Your task to perform on an android device: toggle notification dots Image 0: 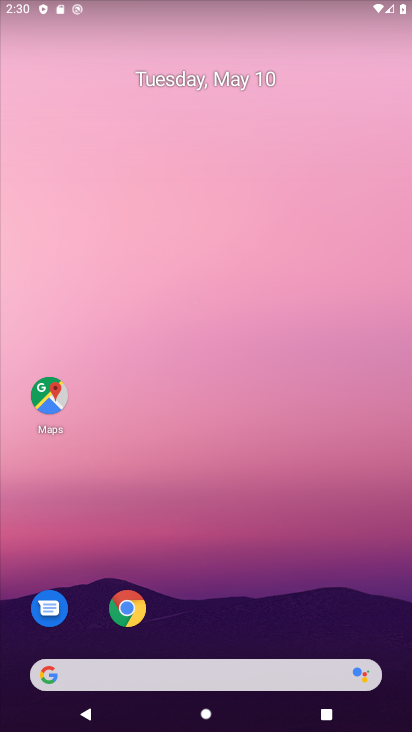
Step 0: drag from (397, 665) to (292, 176)
Your task to perform on an android device: toggle notification dots Image 1: 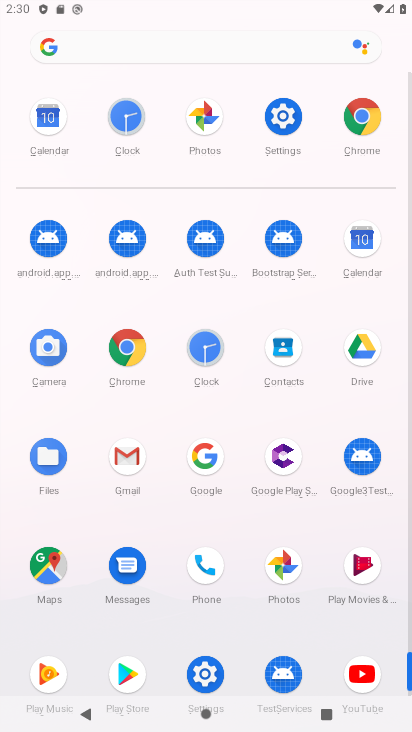
Step 1: drag from (410, 645) to (410, 607)
Your task to perform on an android device: toggle notification dots Image 2: 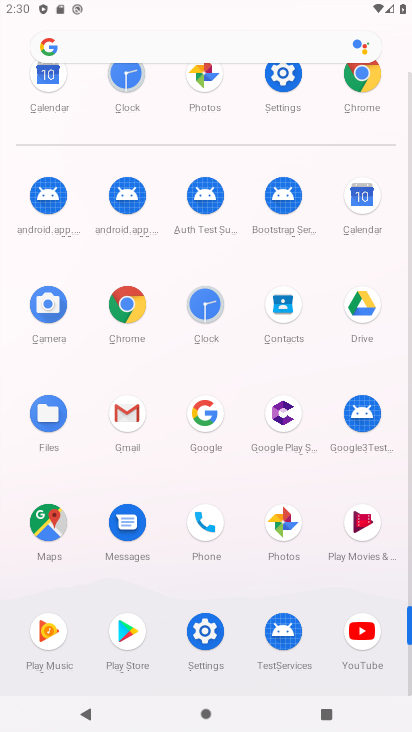
Step 2: click (203, 631)
Your task to perform on an android device: toggle notification dots Image 3: 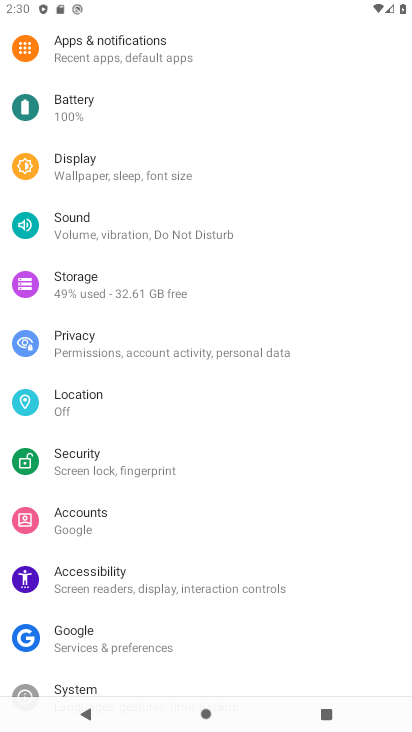
Step 3: drag from (296, 175) to (269, 434)
Your task to perform on an android device: toggle notification dots Image 4: 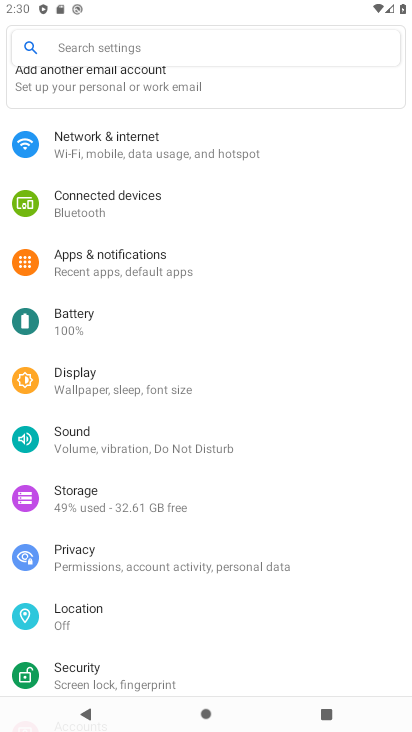
Step 4: click (91, 257)
Your task to perform on an android device: toggle notification dots Image 5: 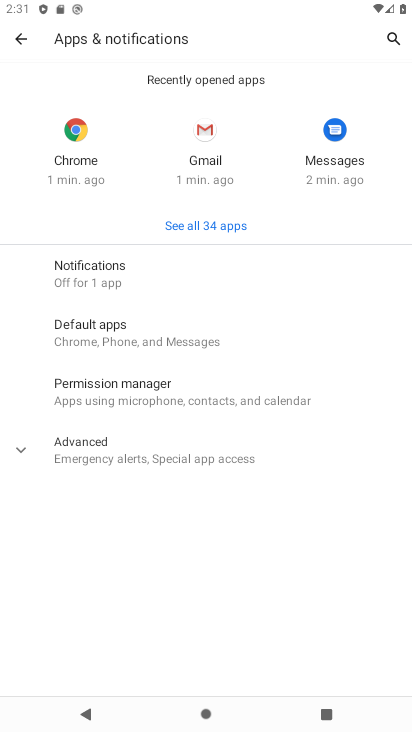
Step 5: click (77, 268)
Your task to perform on an android device: toggle notification dots Image 6: 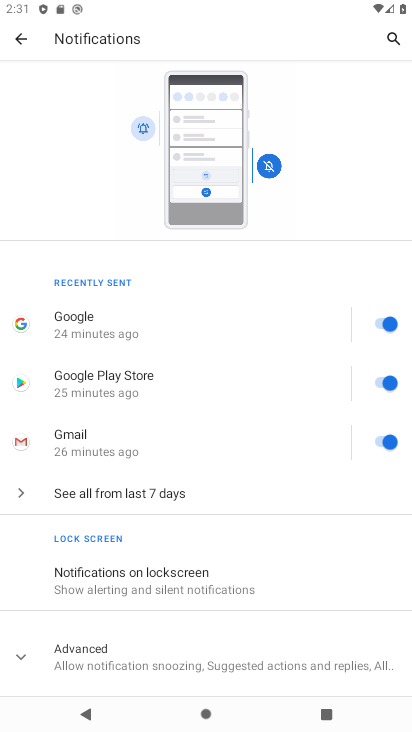
Step 6: drag from (285, 579) to (327, 204)
Your task to perform on an android device: toggle notification dots Image 7: 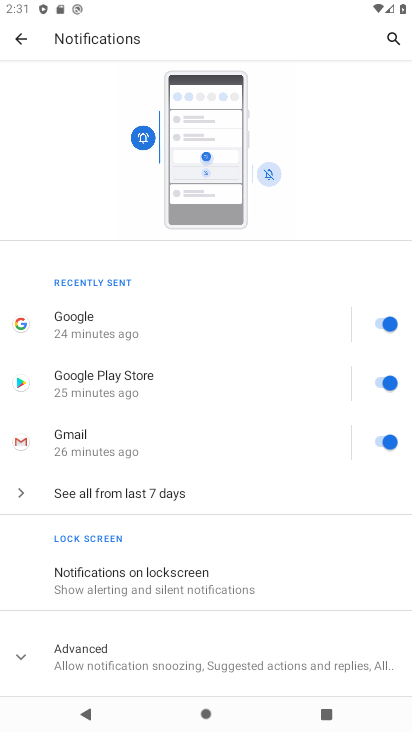
Step 7: click (18, 657)
Your task to perform on an android device: toggle notification dots Image 8: 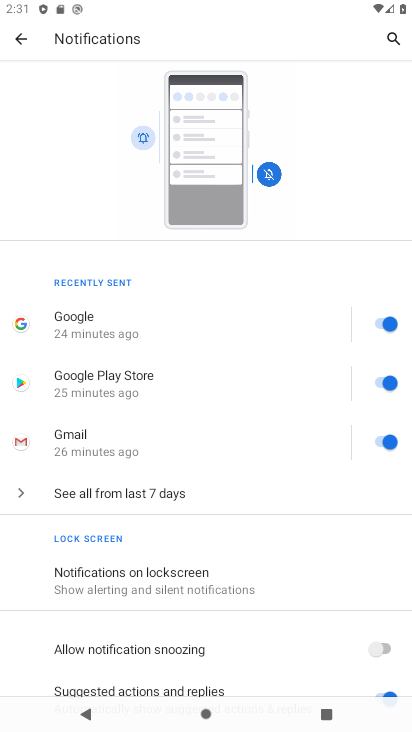
Step 8: drag from (289, 644) to (351, 278)
Your task to perform on an android device: toggle notification dots Image 9: 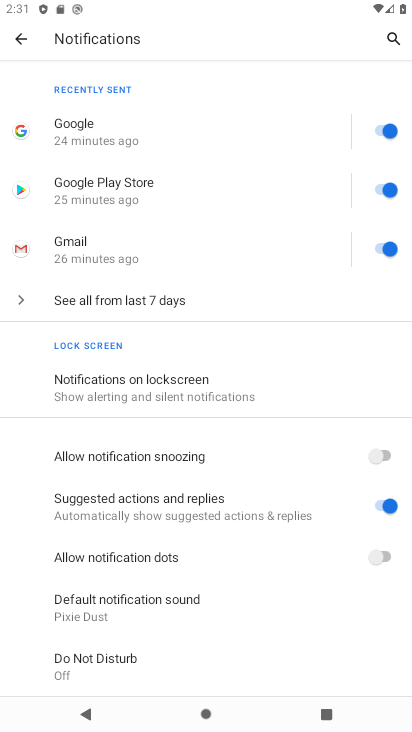
Step 9: click (385, 554)
Your task to perform on an android device: toggle notification dots Image 10: 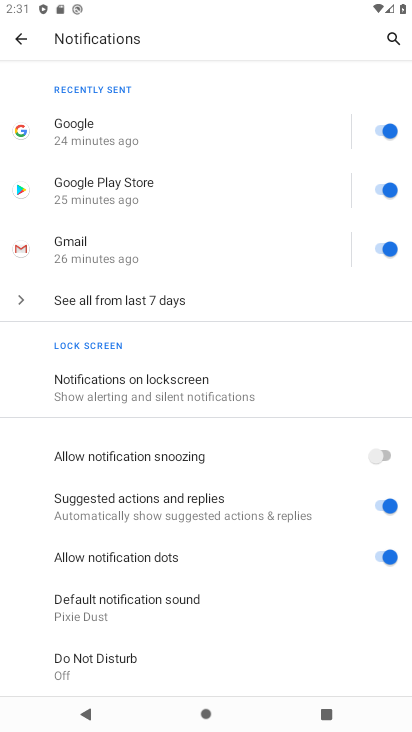
Step 10: task complete